Your task to perform on an android device: open wifi settings Image 0: 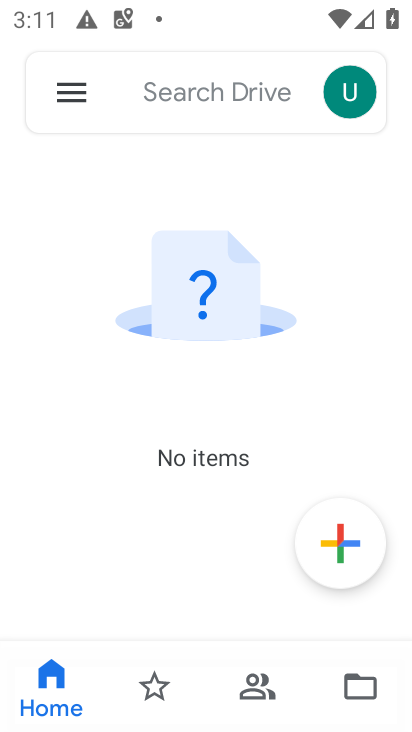
Step 0: press home button
Your task to perform on an android device: open wifi settings Image 1: 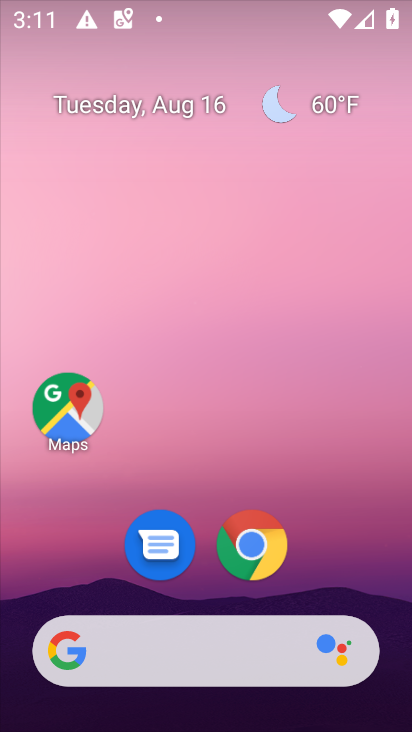
Step 1: drag from (168, 511) to (168, 147)
Your task to perform on an android device: open wifi settings Image 2: 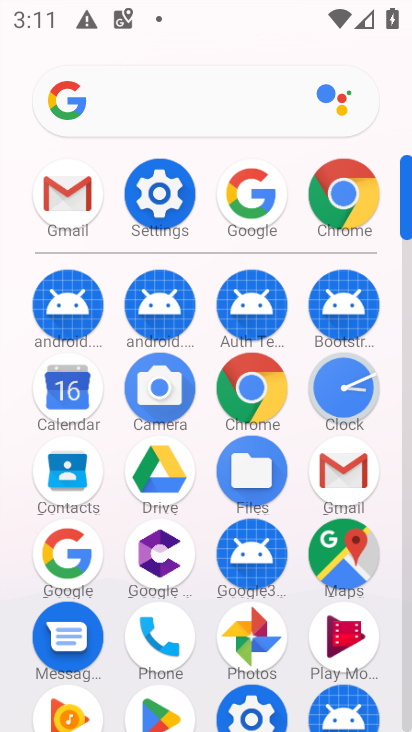
Step 2: click (155, 179)
Your task to perform on an android device: open wifi settings Image 3: 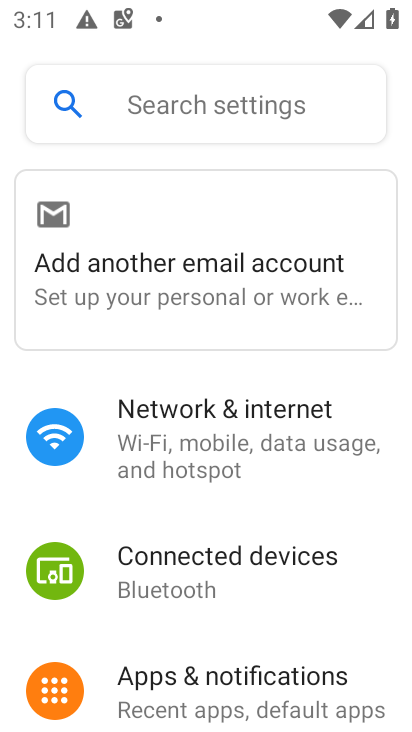
Step 3: click (158, 433)
Your task to perform on an android device: open wifi settings Image 4: 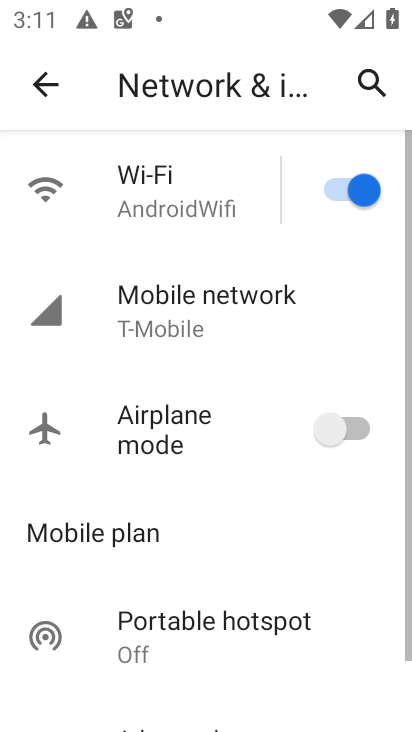
Step 4: click (151, 214)
Your task to perform on an android device: open wifi settings Image 5: 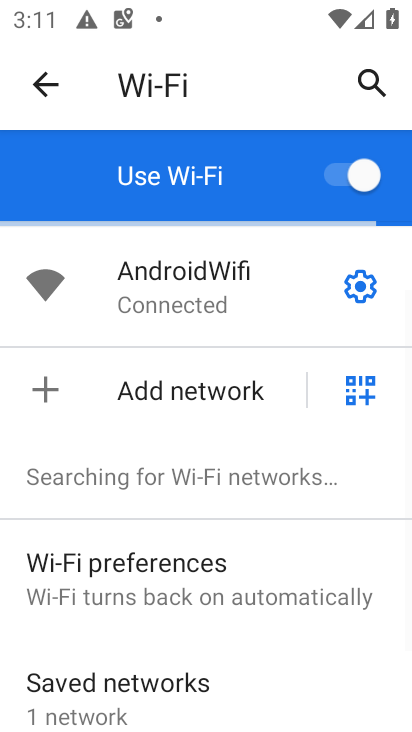
Step 5: click (367, 282)
Your task to perform on an android device: open wifi settings Image 6: 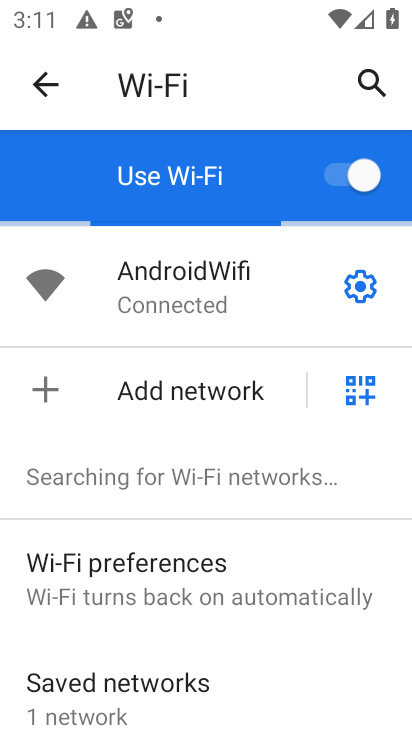
Step 6: click (346, 290)
Your task to perform on an android device: open wifi settings Image 7: 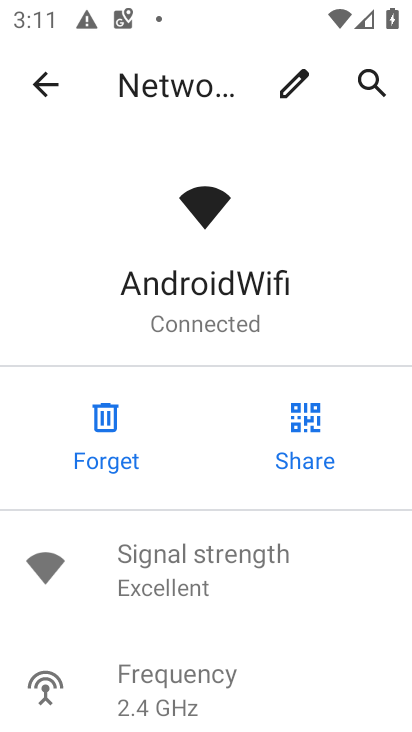
Step 7: drag from (153, 713) to (141, 353)
Your task to perform on an android device: open wifi settings Image 8: 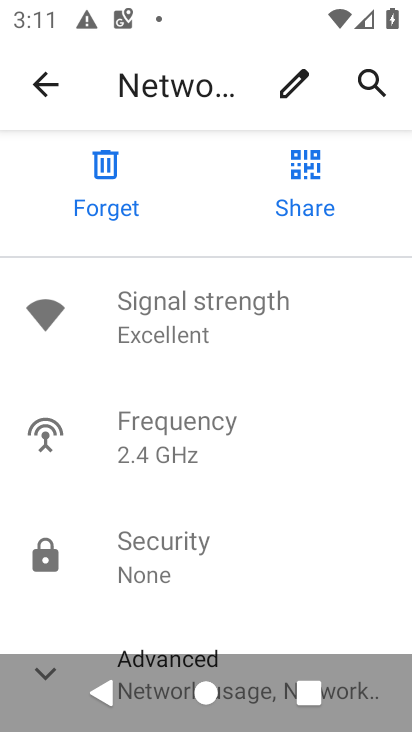
Step 8: drag from (138, 629) to (138, 251)
Your task to perform on an android device: open wifi settings Image 9: 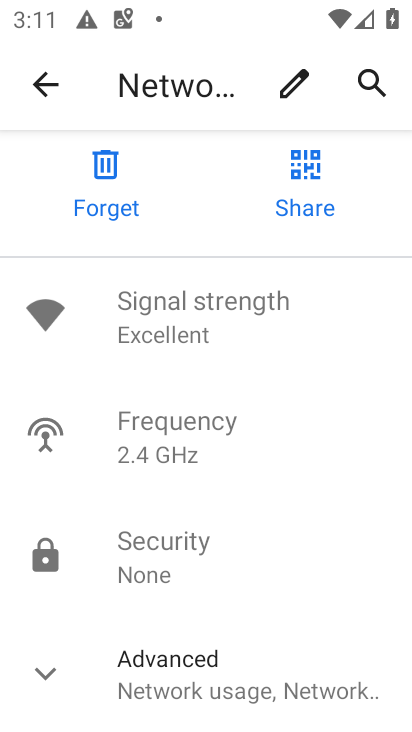
Step 9: click (113, 673)
Your task to perform on an android device: open wifi settings Image 10: 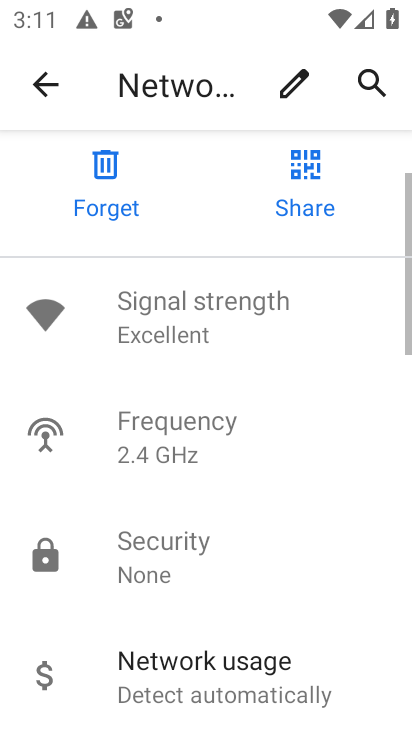
Step 10: task complete